Your task to perform on an android device: delete a single message in the gmail app Image 0: 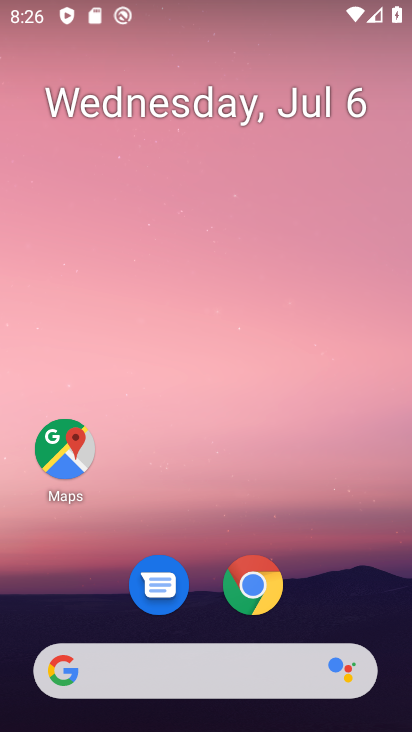
Step 0: drag from (201, 517) to (217, 7)
Your task to perform on an android device: delete a single message in the gmail app Image 1: 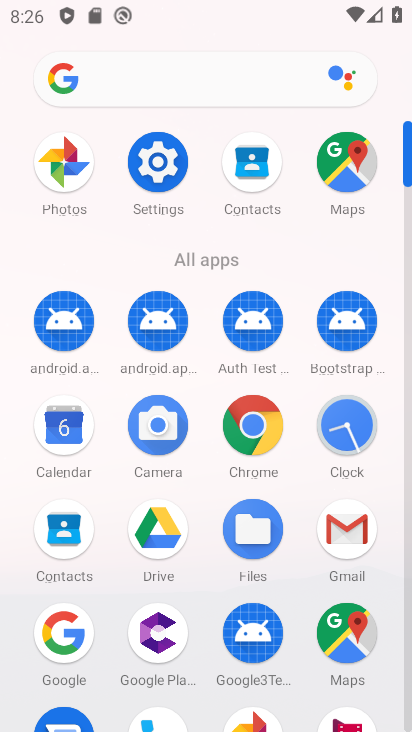
Step 1: click (340, 533)
Your task to perform on an android device: delete a single message in the gmail app Image 2: 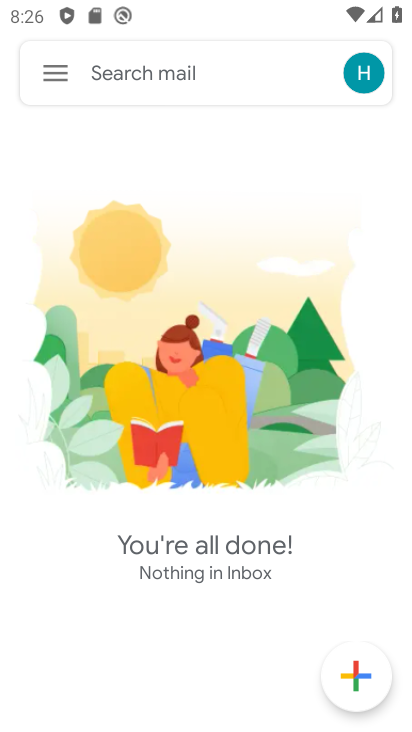
Step 2: task complete